Your task to perform on an android device: all mails in gmail Image 0: 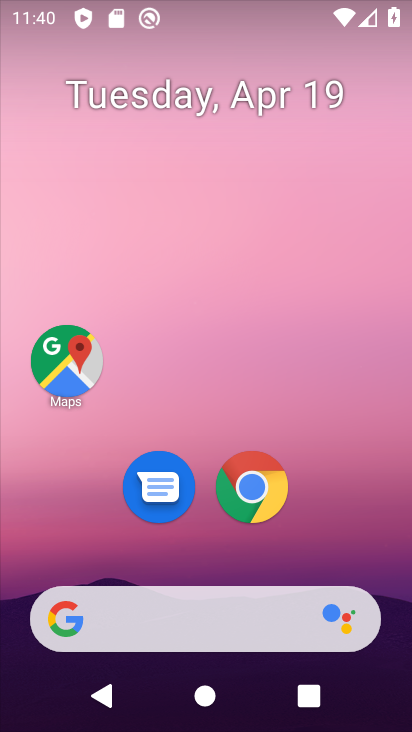
Step 0: drag from (356, 586) to (314, 46)
Your task to perform on an android device: all mails in gmail Image 1: 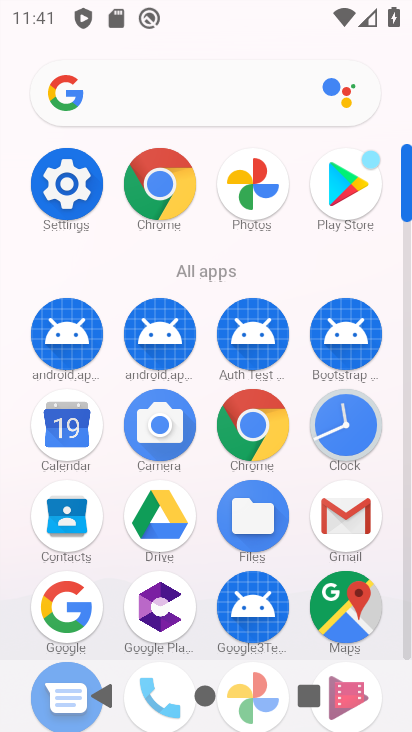
Step 1: click (362, 527)
Your task to perform on an android device: all mails in gmail Image 2: 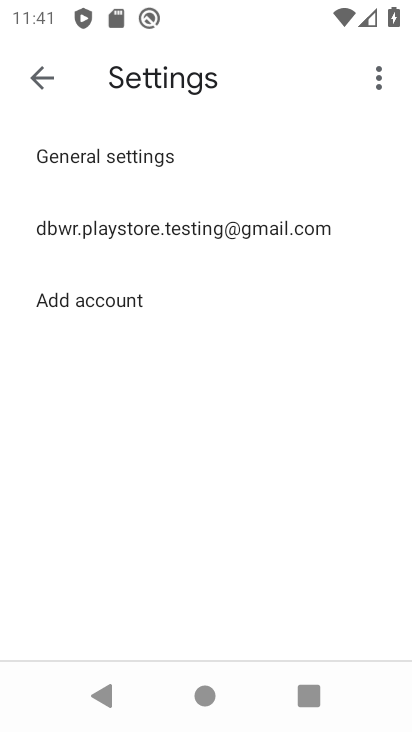
Step 2: click (29, 71)
Your task to perform on an android device: all mails in gmail Image 3: 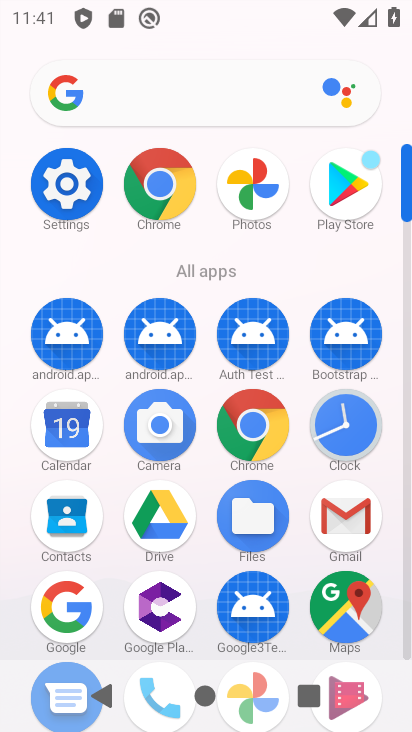
Step 3: click (356, 521)
Your task to perform on an android device: all mails in gmail Image 4: 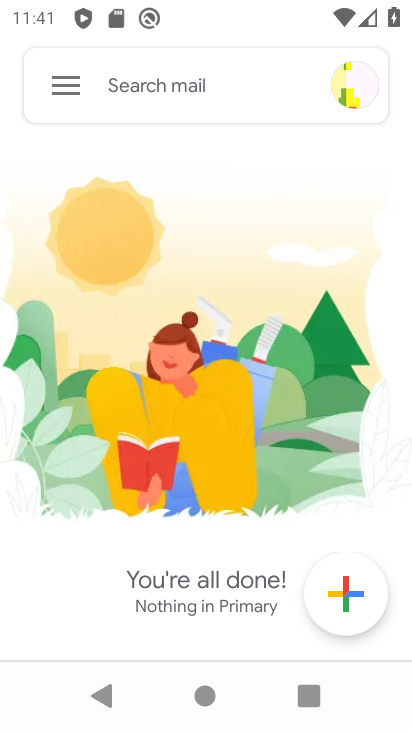
Step 4: click (80, 92)
Your task to perform on an android device: all mails in gmail Image 5: 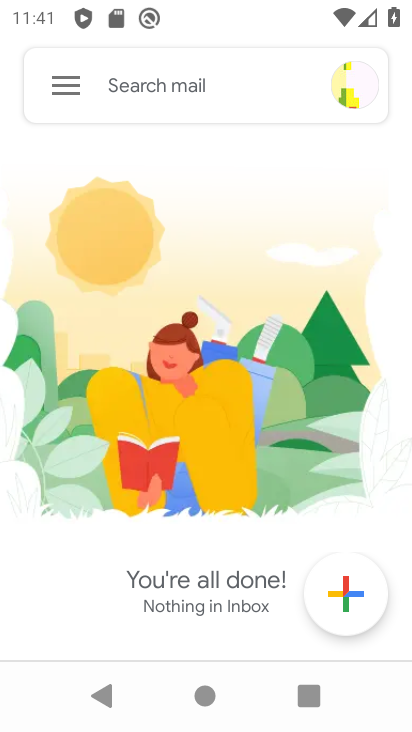
Step 5: click (58, 81)
Your task to perform on an android device: all mails in gmail Image 6: 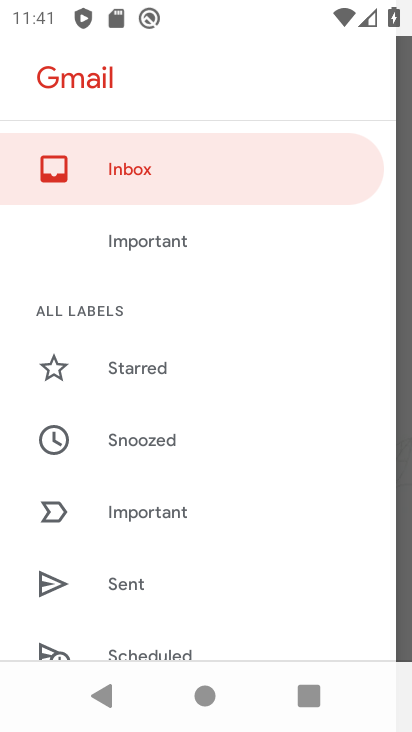
Step 6: drag from (131, 629) to (241, 166)
Your task to perform on an android device: all mails in gmail Image 7: 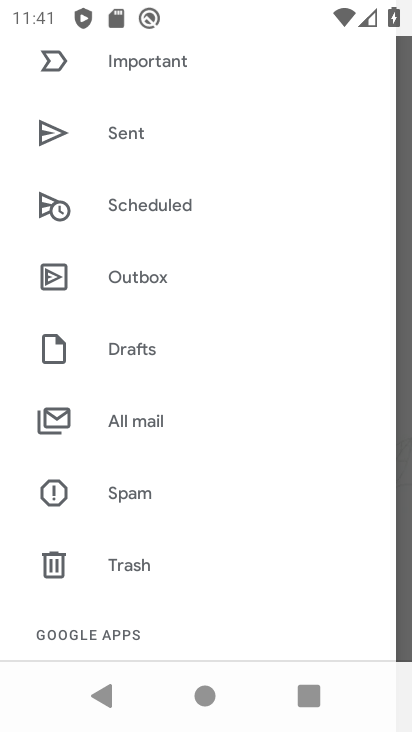
Step 7: click (187, 420)
Your task to perform on an android device: all mails in gmail Image 8: 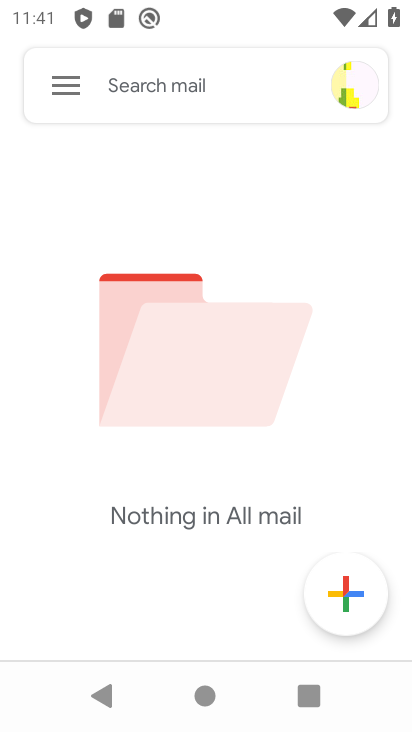
Step 8: task complete